Your task to perform on an android device: Go to calendar. Show me events next week Image 0: 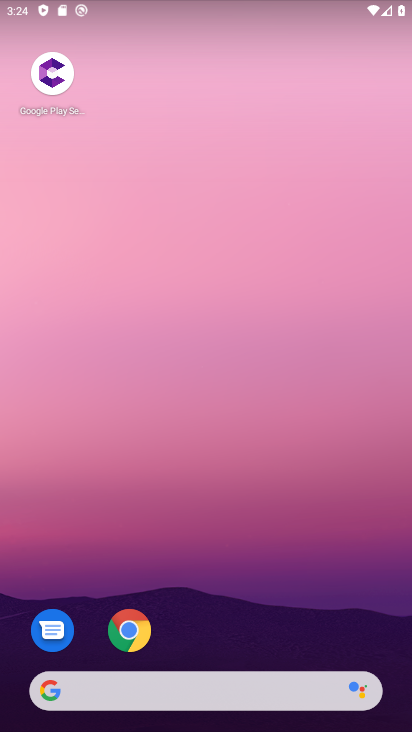
Step 0: drag from (213, 622) to (238, 135)
Your task to perform on an android device: Go to calendar. Show me events next week Image 1: 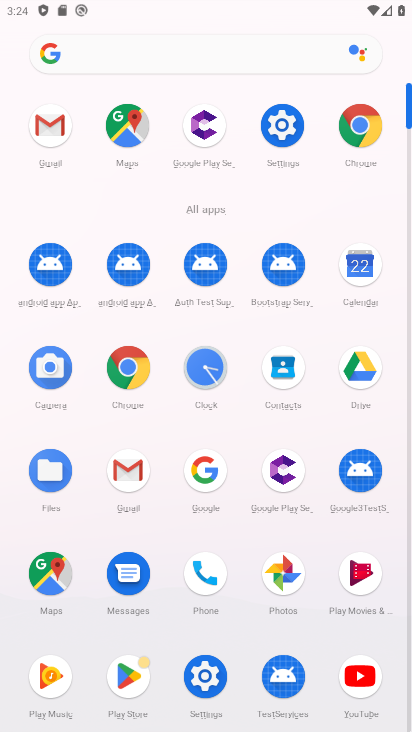
Step 1: click (360, 279)
Your task to perform on an android device: Go to calendar. Show me events next week Image 2: 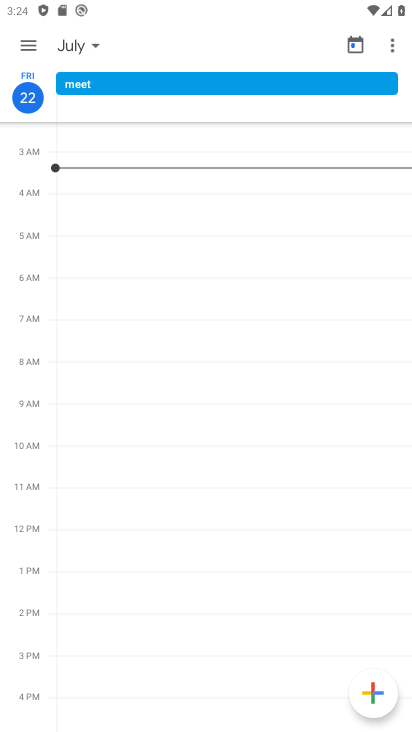
Step 2: click (32, 45)
Your task to perform on an android device: Go to calendar. Show me events next week Image 3: 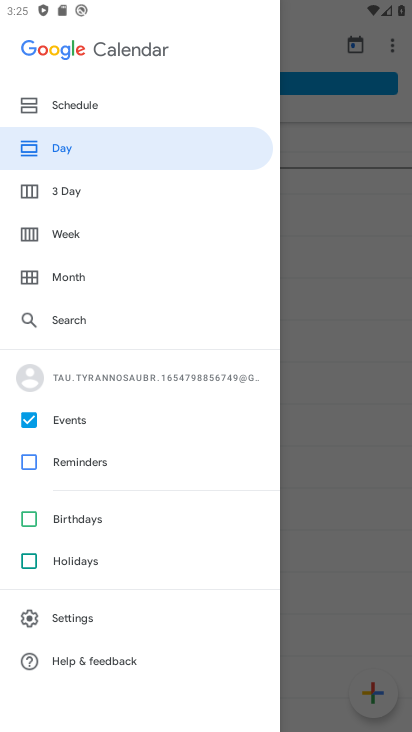
Step 3: click (77, 233)
Your task to perform on an android device: Go to calendar. Show me events next week Image 4: 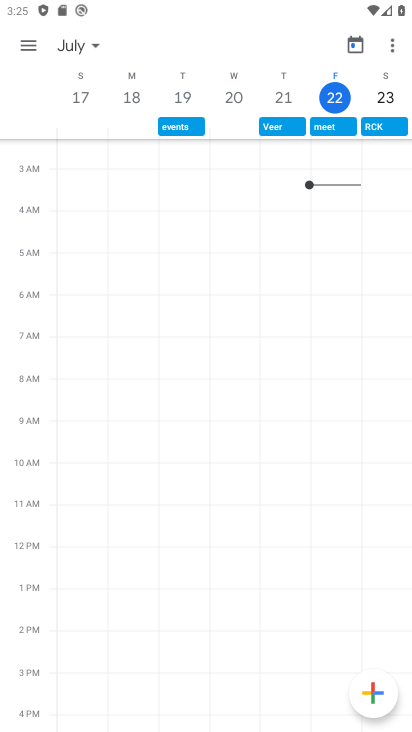
Step 4: task complete